Your task to perform on an android device: visit the assistant section in the google photos Image 0: 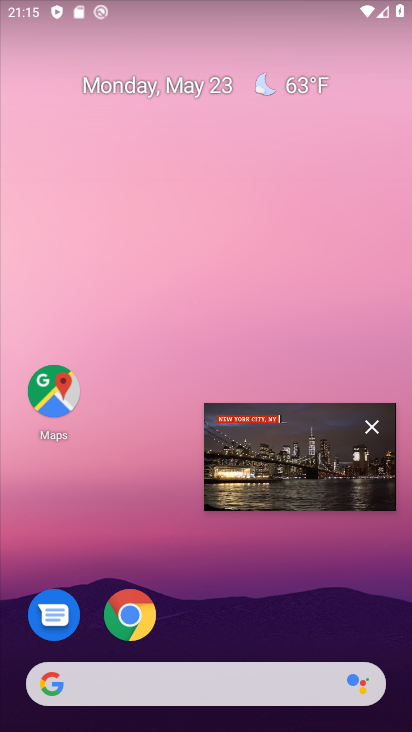
Step 0: click (367, 424)
Your task to perform on an android device: visit the assistant section in the google photos Image 1: 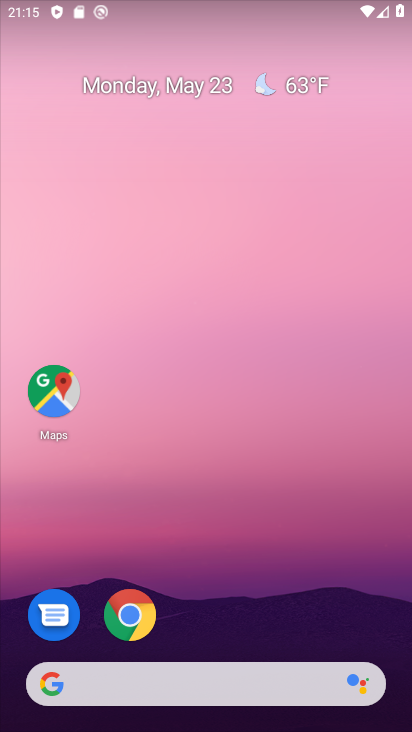
Step 1: drag from (269, 601) to (241, 127)
Your task to perform on an android device: visit the assistant section in the google photos Image 2: 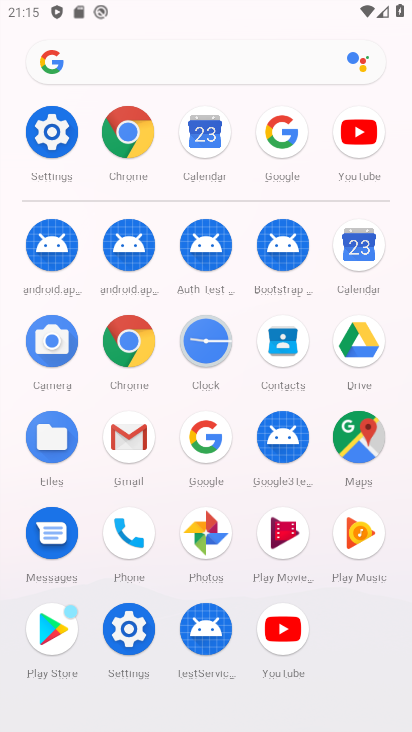
Step 2: click (210, 533)
Your task to perform on an android device: visit the assistant section in the google photos Image 3: 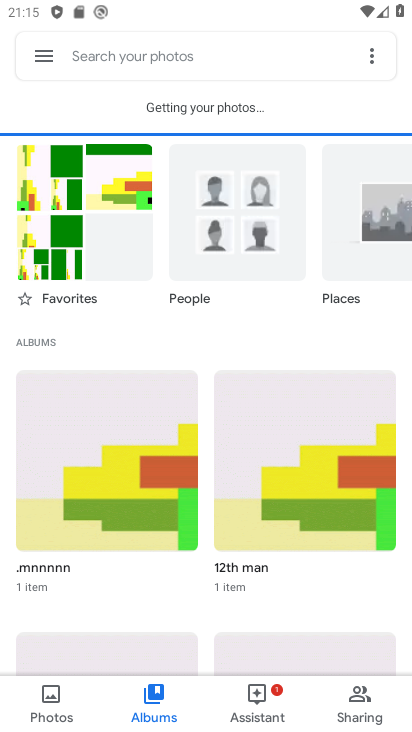
Step 3: click (255, 700)
Your task to perform on an android device: visit the assistant section in the google photos Image 4: 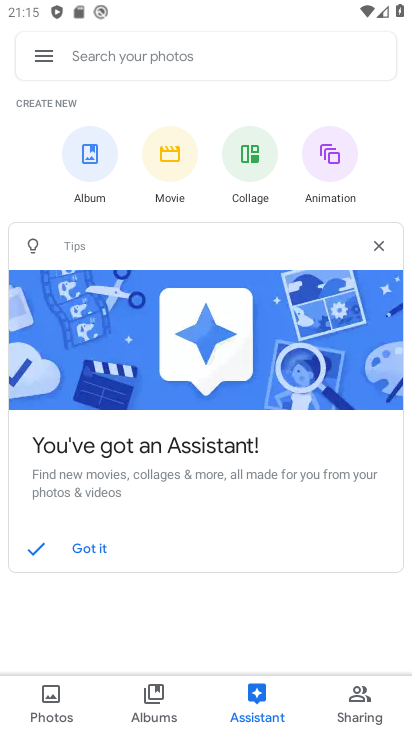
Step 4: task complete